Your task to perform on an android device: turn on improve location accuracy Image 0: 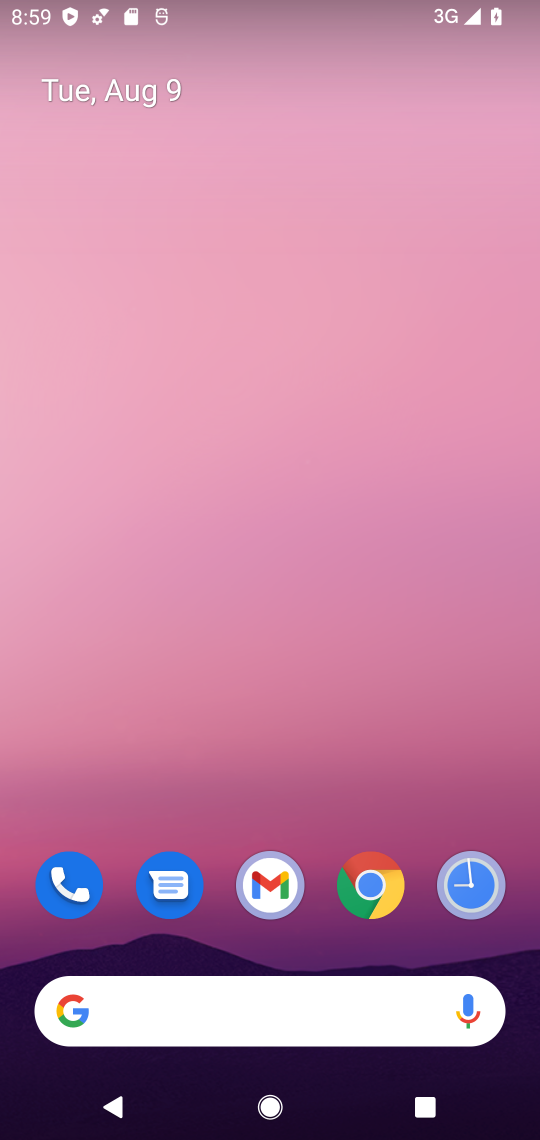
Step 0: press home button
Your task to perform on an android device: turn on improve location accuracy Image 1: 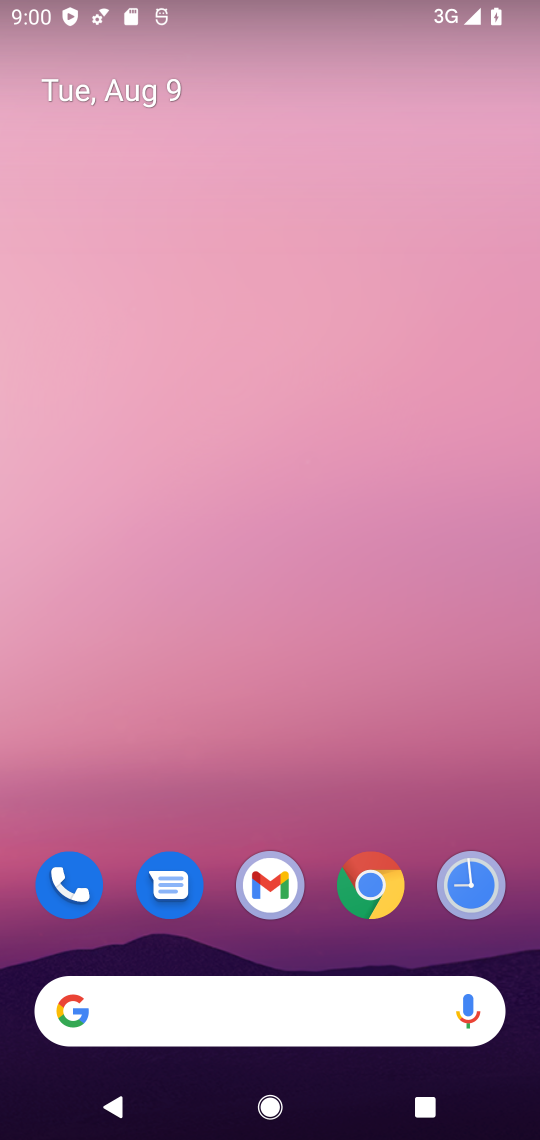
Step 1: drag from (316, 950) to (315, 290)
Your task to perform on an android device: turn on improve location accuracy Image 2: 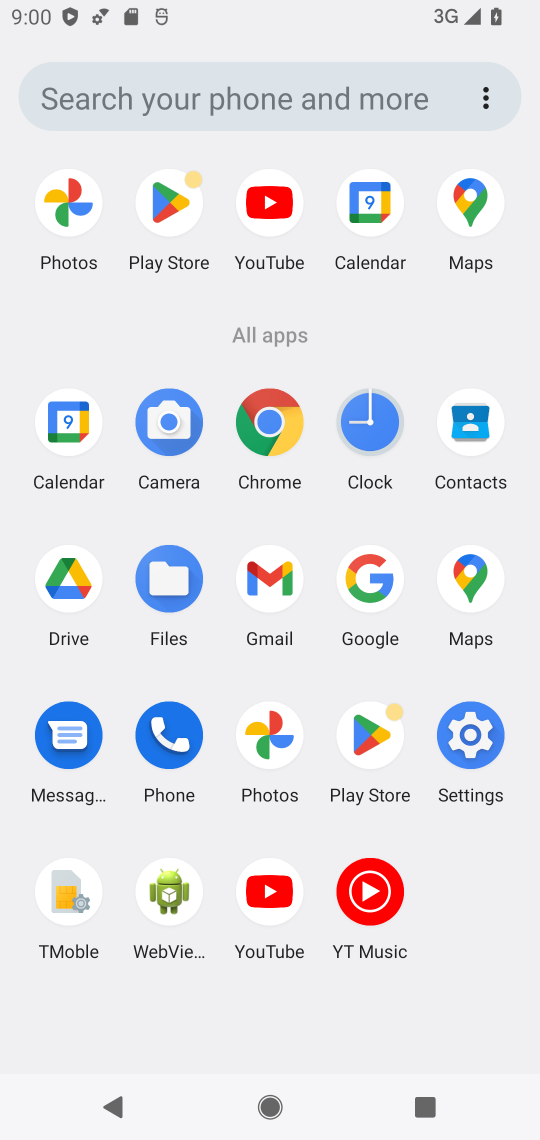
Step 2: click (470, 727)
Your task to perform on an android device: turn on improve location accuracy Image 3: 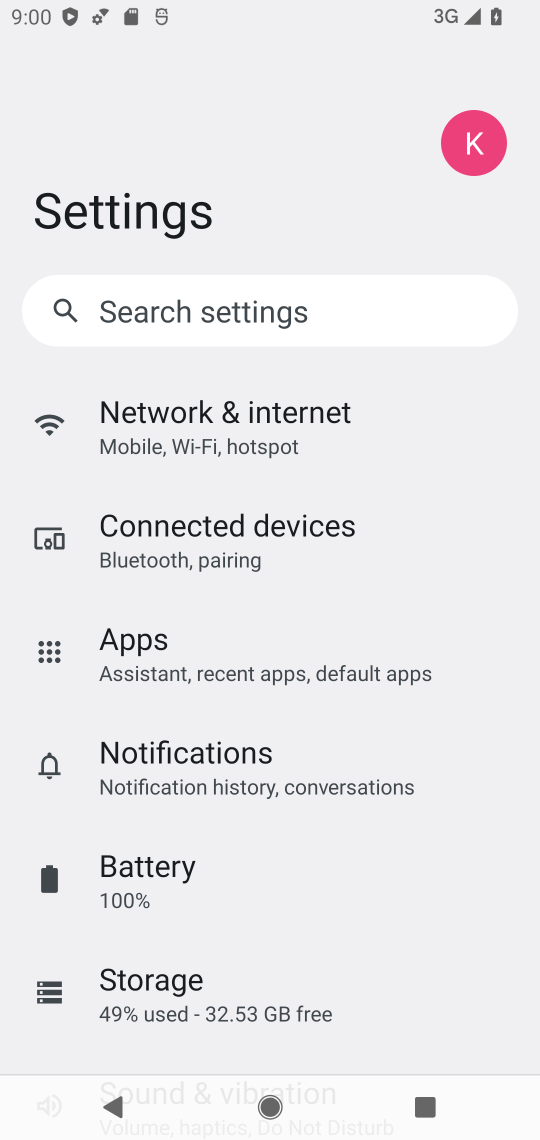
Step 3: drag from (234, 947) to (264, 352)
Your task to perform on an android device: turn on improve location accuracy Image 4: 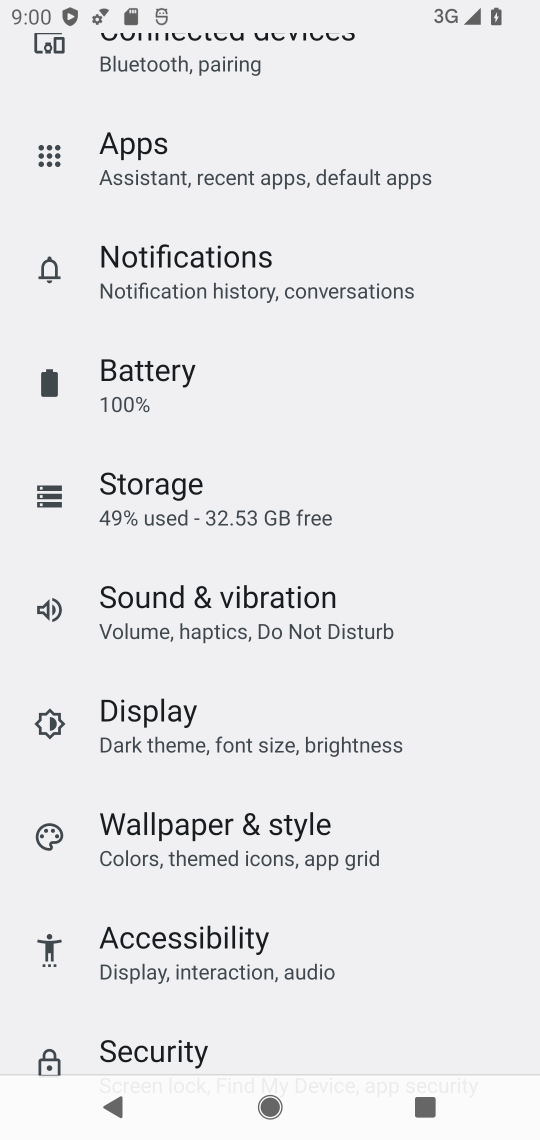
Step 4: drag from (260, 1007) to (281, 645)
Your task to perform on an android device: turn on improve location accuracy Image 5: 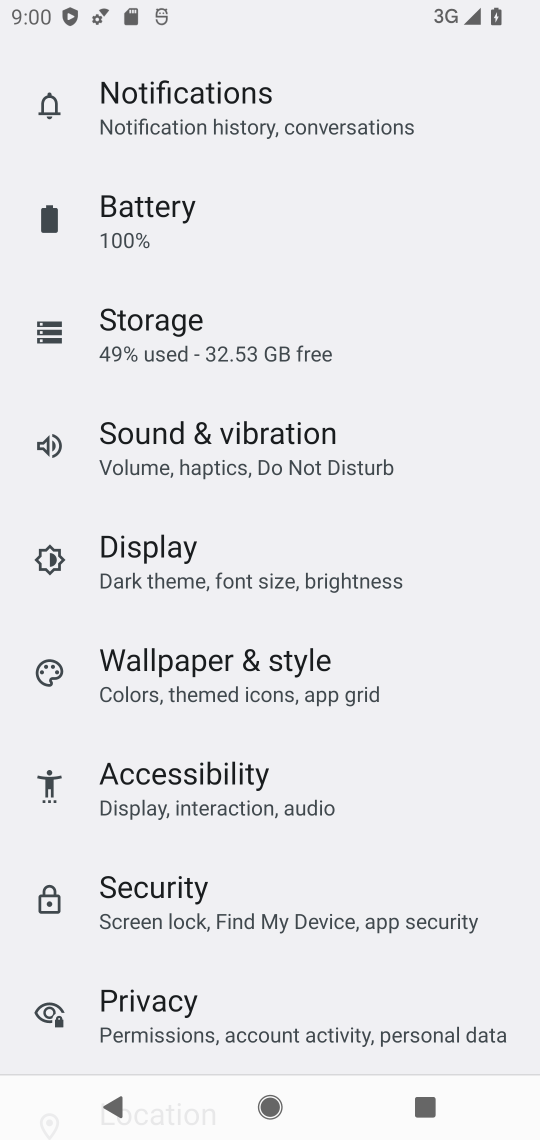
Step 5: drag from (250, 967) to (259, 578)
Your task to perform on an android device: turn on improve location accuracy Image 6: 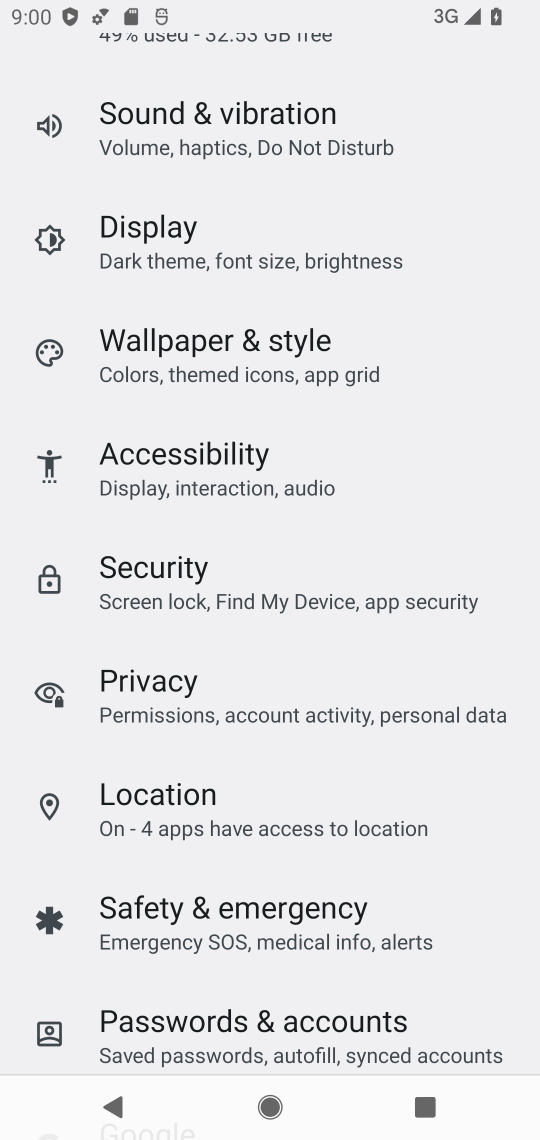
Step 6: click (192, 812)
Your task to perform on an android device: turn on improve location accuracy Image 7: 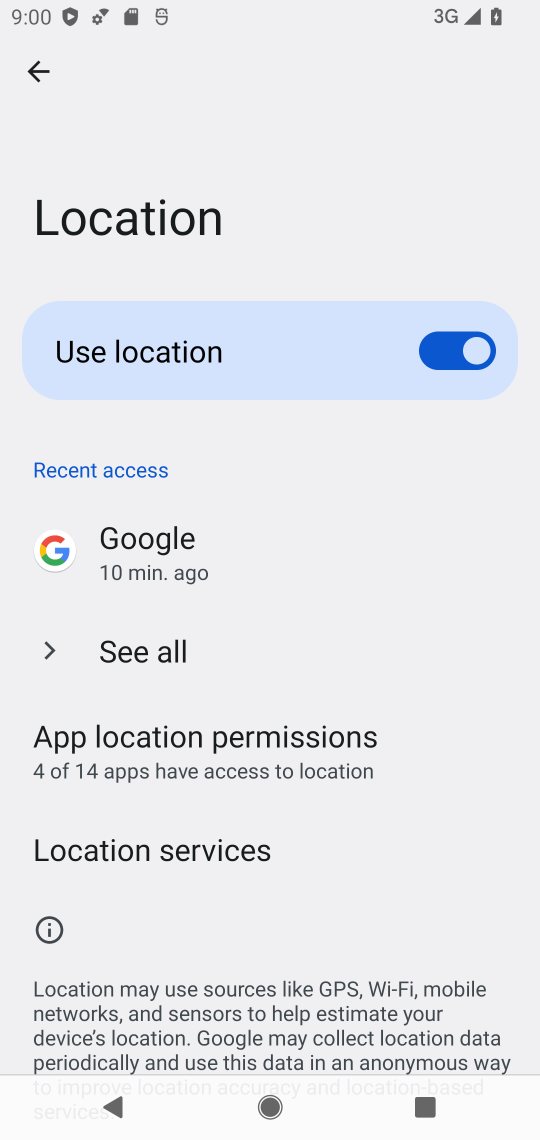
Step 7: click (147, 851)
Your task to perform on an android device: turn on improve location accuracy Image 8: 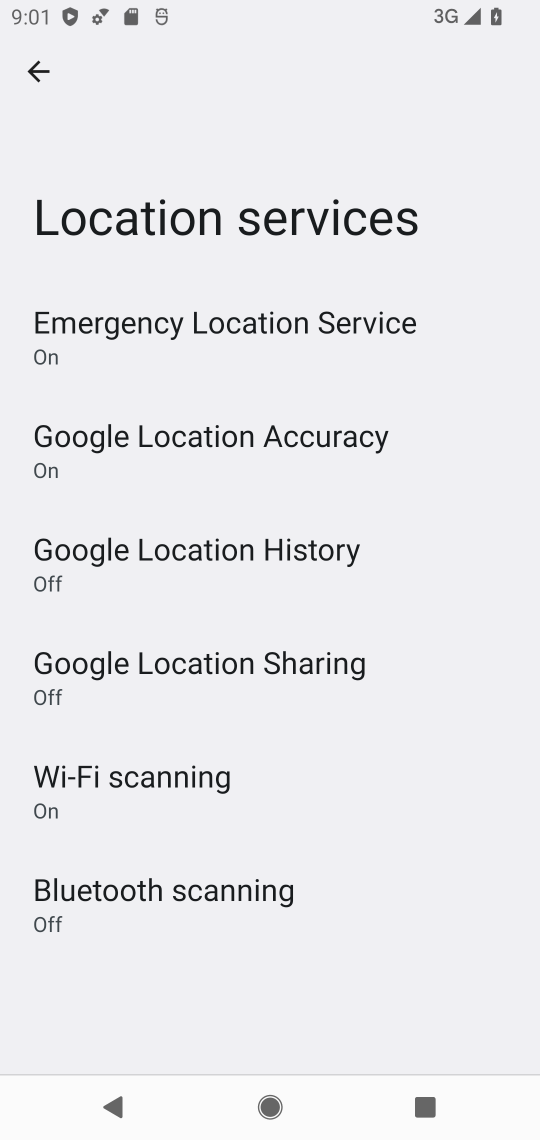
Step 8: click (252, 454)
Your task to perform on an android device: turn on improve location accuracy Image 9: 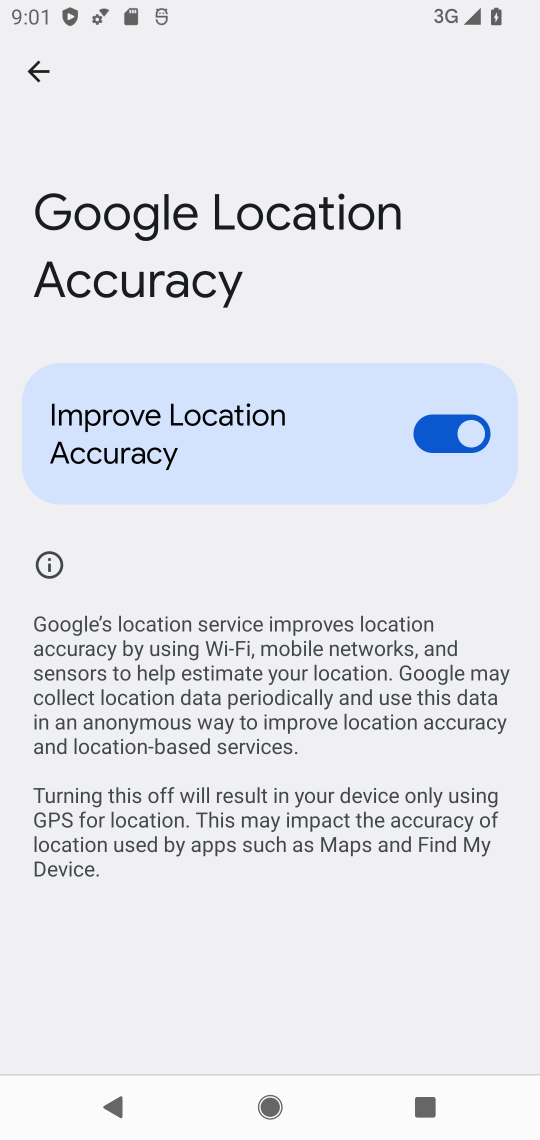
Step 9: task complete